Your task to perform on an android device: Search for Mexican restaurants on Maps Image 0: 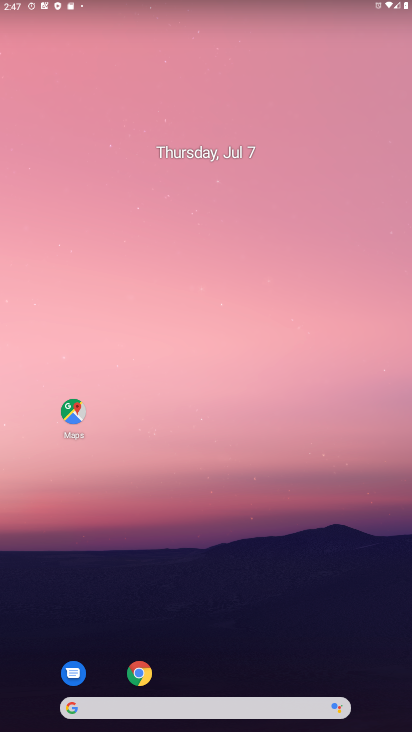
Step 0: drag from (245, 673) to (176, 77)
Your task to perform on an android device: Search for Mexican restaurants on Maps Image 1: 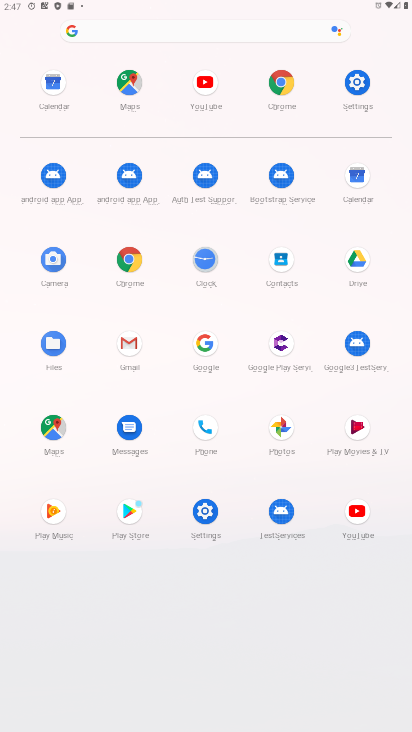
Step 1: click (58, 427)
Your task to perform on an android device: Search for Mexican restaurants on Maps Image 2: 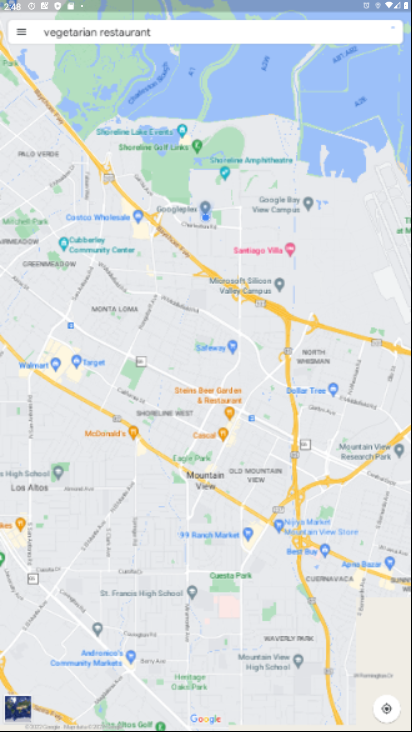
Step 2: click (184, 34)
Your task to perform on an android device: Search for Mexican restaurants on Maps Image 3: 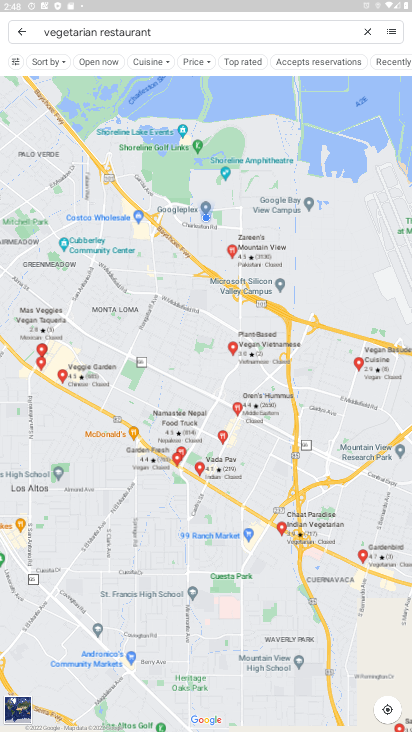
Step 3: click (364, 32)
Your task to perform on an android device: Search for Mexican restaurants on Maps Image 4: 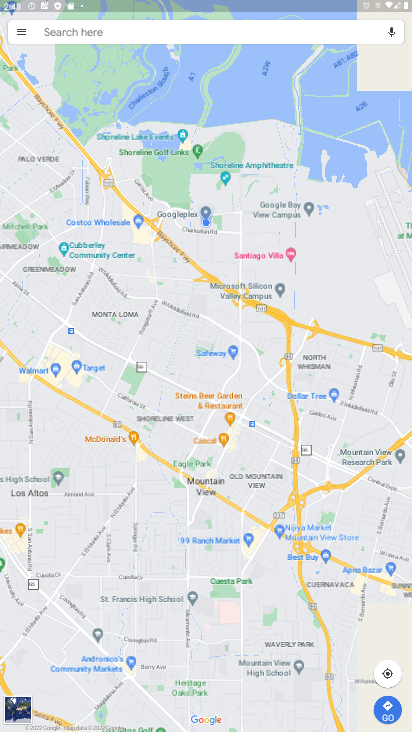
Step 4: click (115, 35)
Your task to perform on an android device: Search for Mexican restaurants on Maps Image 5: 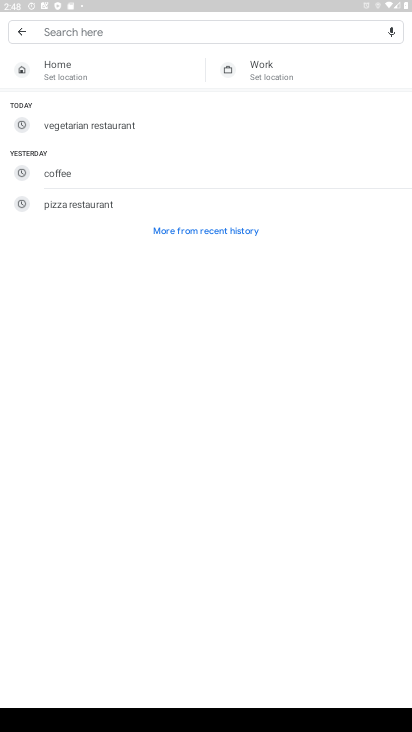
Step 5: type "Mexican restaurant"
Your task to perform on an android device: Search for Mexican restaurants on Maps Image 6: 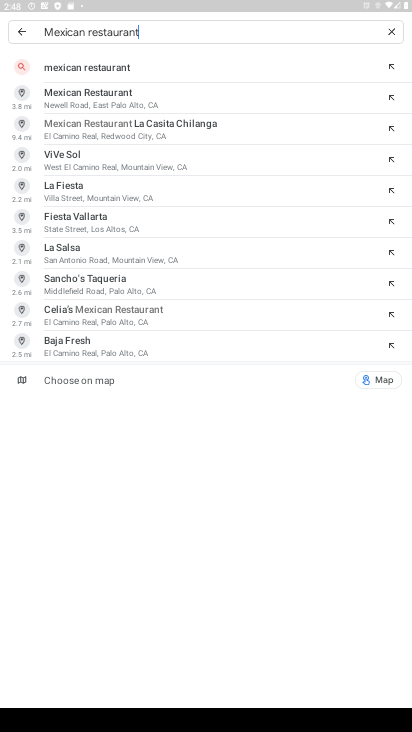
Step 6: click (79, 78)
Your task to perform on an android device: Search for Mexican restaurants on Maps Image 7: 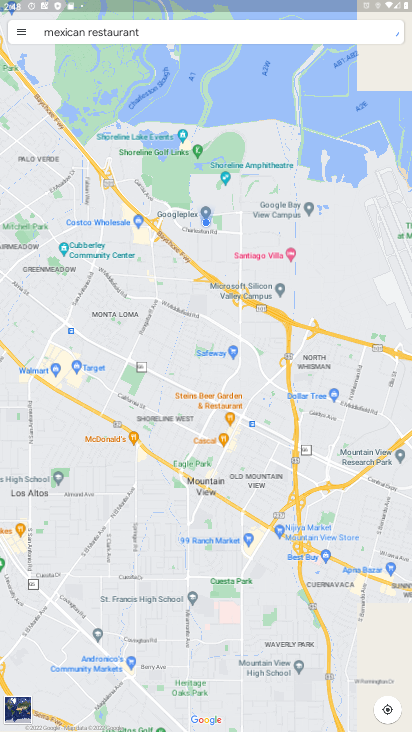
Step 7: task complete